Your task to perform on an android device: turn off javascript in the chrome app Image 0: 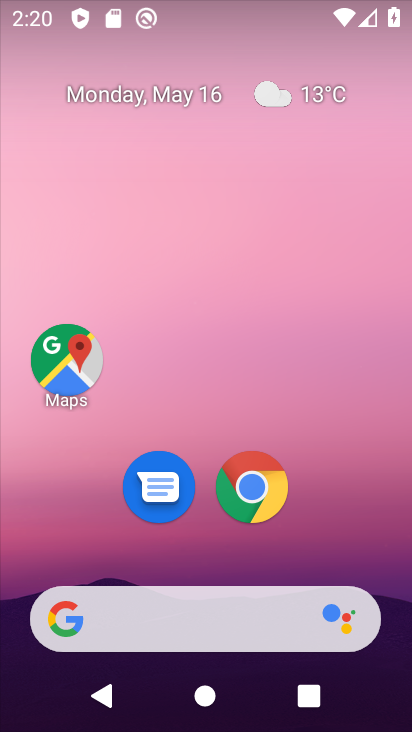
Step 0: drag from (259, 485) to (195, 134)
Your task to perform on an android device: turn off javascript in the chrome app Image 1: 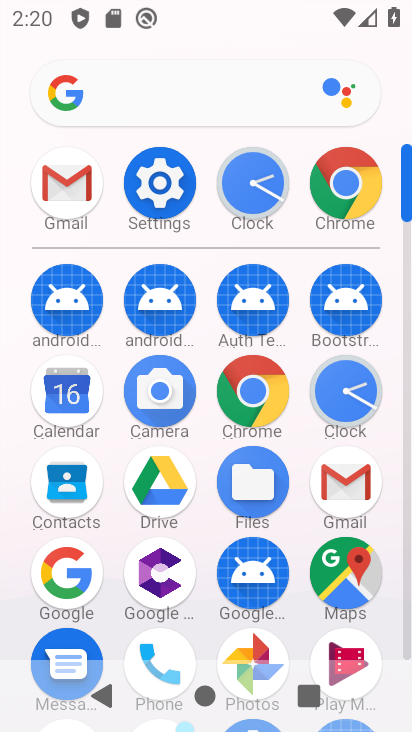
Step 1: click (362, 170)
Your task to perform on an android device: turn off javascript in the chrome app Image 2: 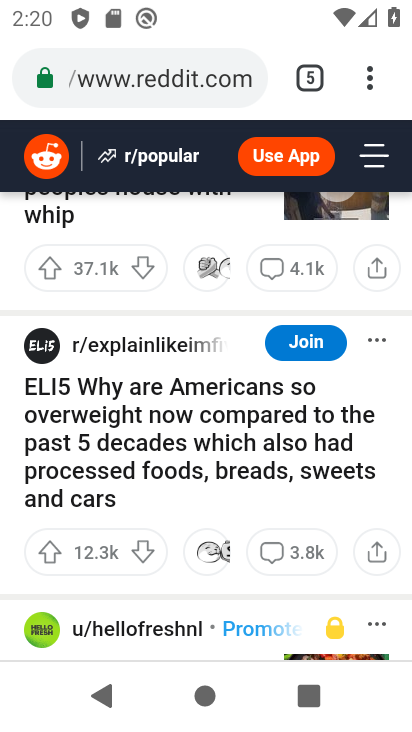
Step 2: click (368, 75)
Your task to perform on an android device: turn off javascript in the chrome app Image 3: 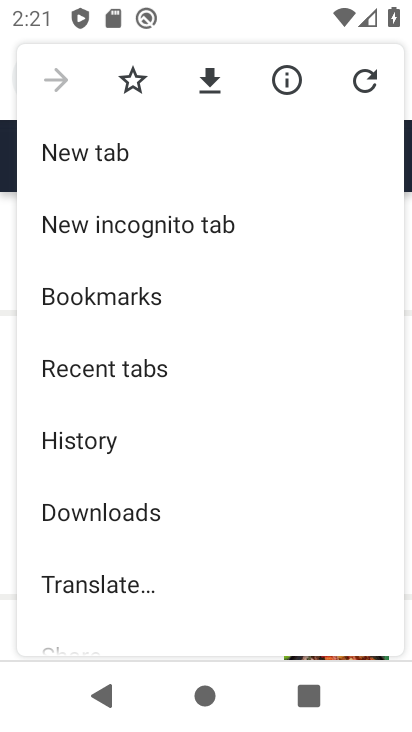
Step 3: drag from (93, 596) to (102, 340)
Your task to perform on an android device: turn off javascript in the chrome app Image 4: 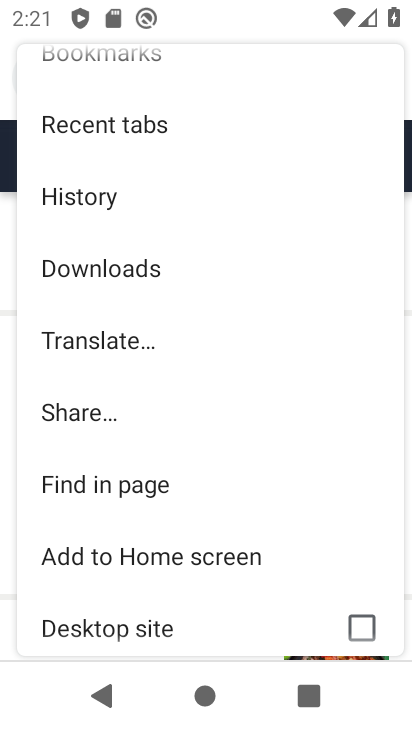
Step 4: drag from (86, 587) to (65, 399)
Your task to perform on an android device: turn off javascript in the chrome app Image 5: 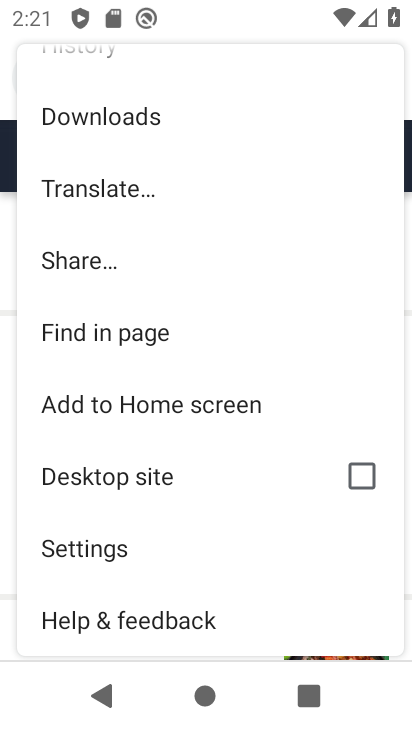
Step 5: drag from (100, 167) to (129, 88)
Your task to perform on an android device: turn off javascript in the chrome app Image 6: 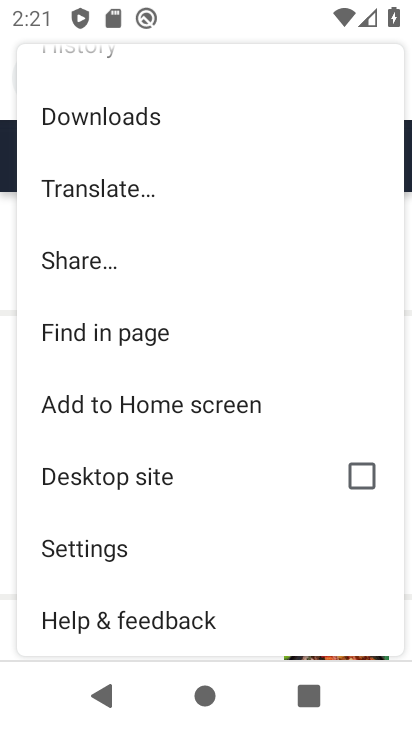
Step 6: click (81, 559)
Your task to perform on an android device: turn off javascript in the chrome app Image 7: 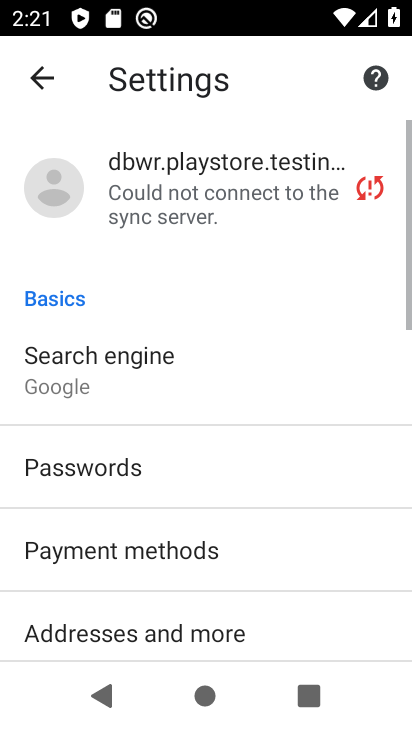
Step 7: drag from (97, 605) to (94, 160)
Your task to perform on an android device: turn off javascript in the chrome app Image 8: 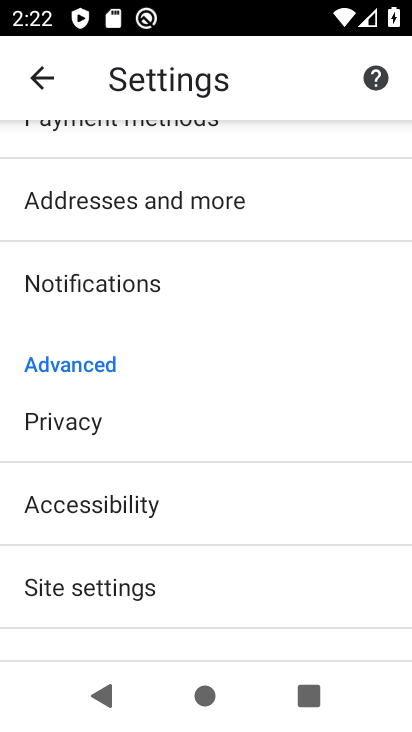
Step 8: click (82, 584)
Your task to perform on an android device: turn off javascript in the chrome app Image 9: 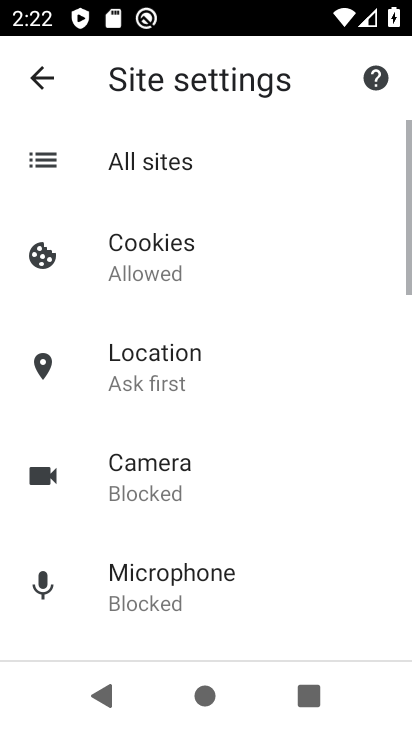
Step 9: drag from (82, 584) to (59, 177)
Your task to perform on an android device: turn off javascript in the chrome app Image 10: 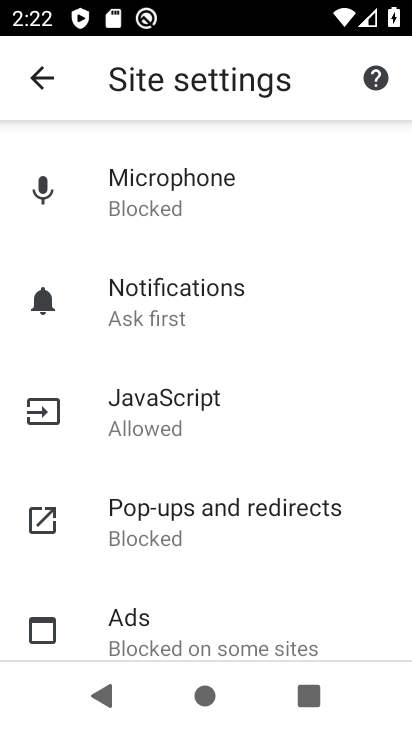
Step 10: click (149, 428)
Your task to perform on an android device: turn off javascript in the chrome app Image 11: 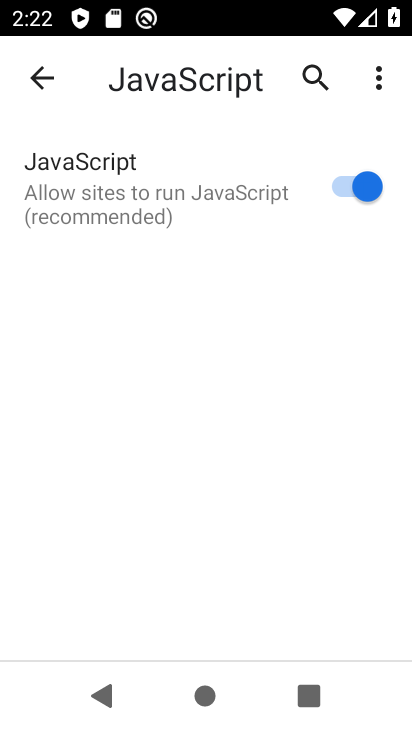
Step 11: click (356, 183)
Your task to perform on an android device: turn off javascript in the chrome app Image 12: 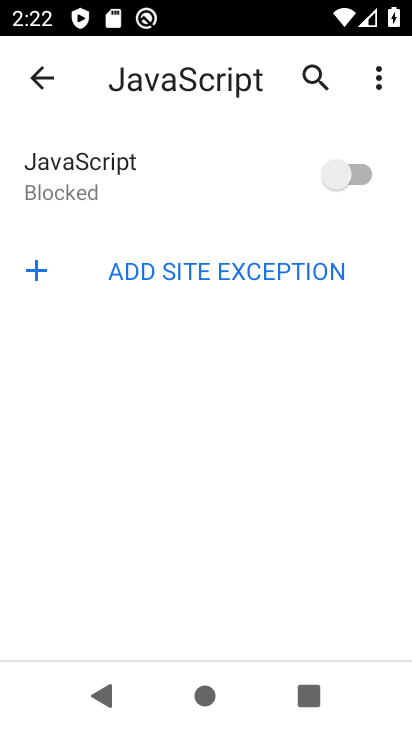
Step 12: task complete